Your task to perform on an android device: Open the phone app and click the voicemail tab. Image 0: 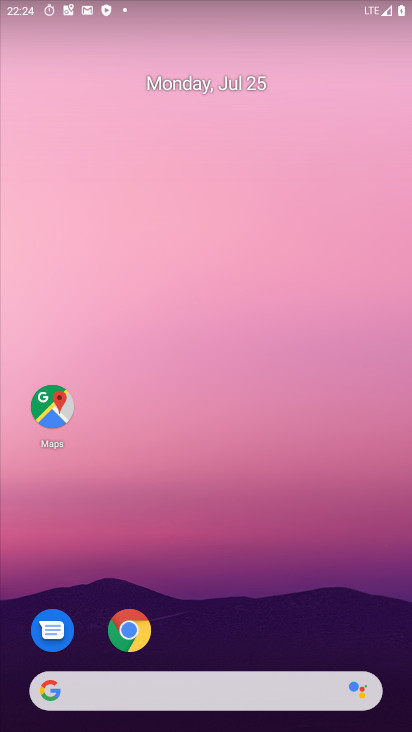
Step 0: press home button
Your task to perform on an android device: Open the phone app and click the voicemail tab. Image 1: 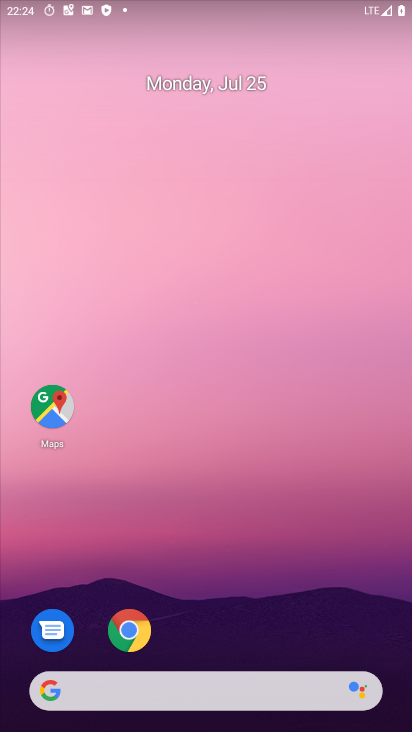
Step 1: drag from (330, 589) to (351, 107)
Your task to perform on an android device: Open the phone app and click the voicemail tab. Image 2: 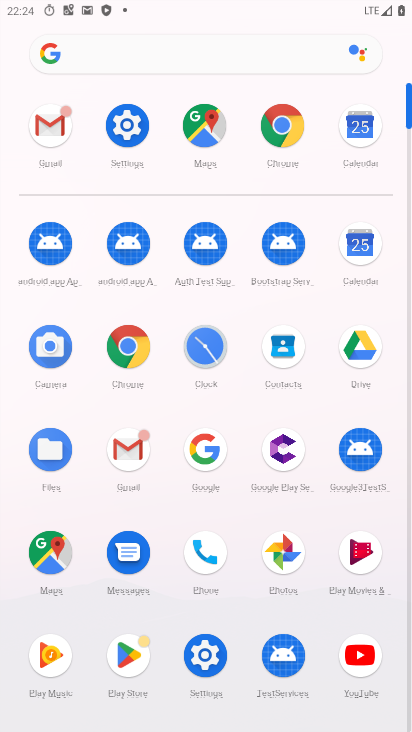
Step 2: click (206, 544)
Your task to perform on an android device: Open the phone app and click the voicemail tab. Image 3: 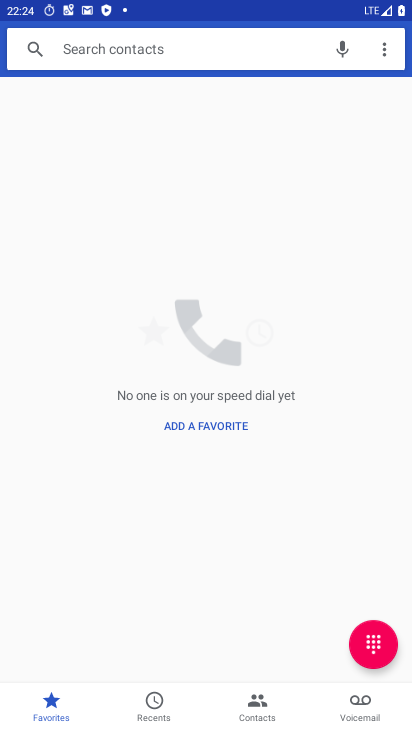
Step 3: click (358, 718)
Your task to perform on an android device: Open the phone app and click the voicemail tab. Image 4: 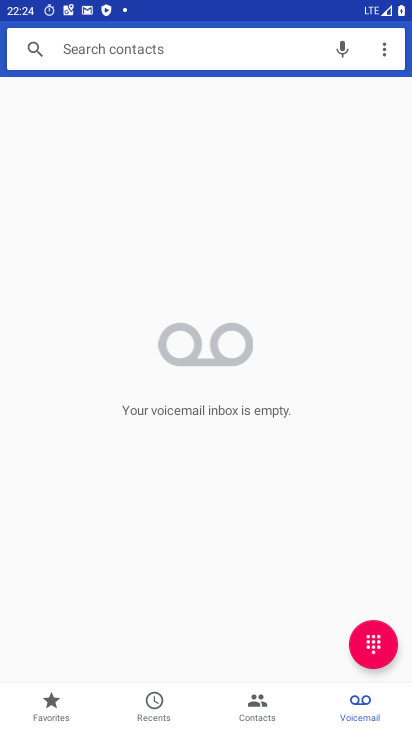
Step 4: task complete